Your task to perform on an android device: open app "Google Calendar" Image 0: 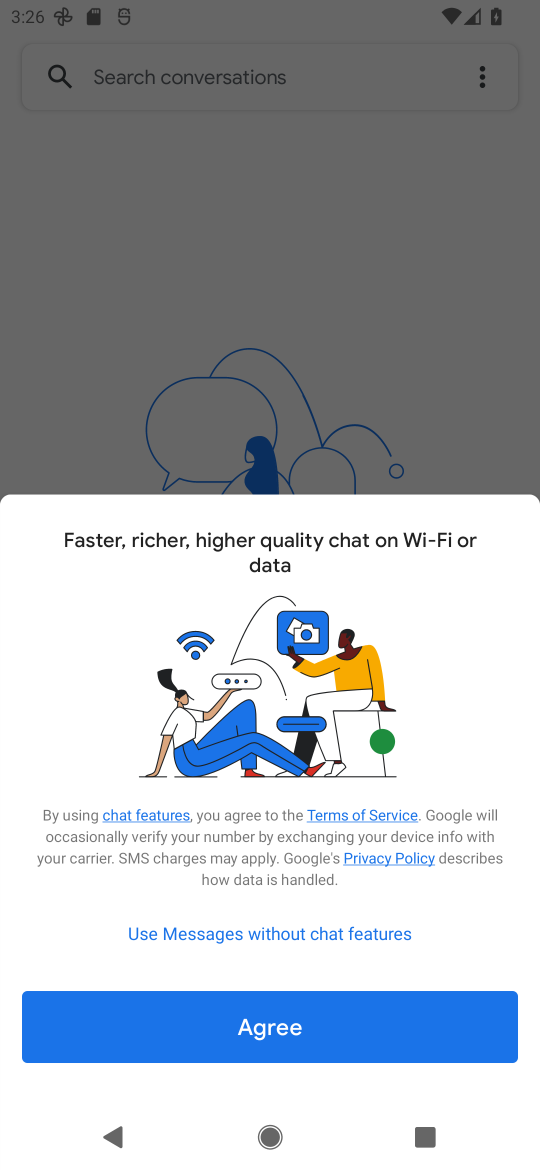
Step 0: press home button
Your task to perform on an android device: open app "Google Calendar" Image 1: 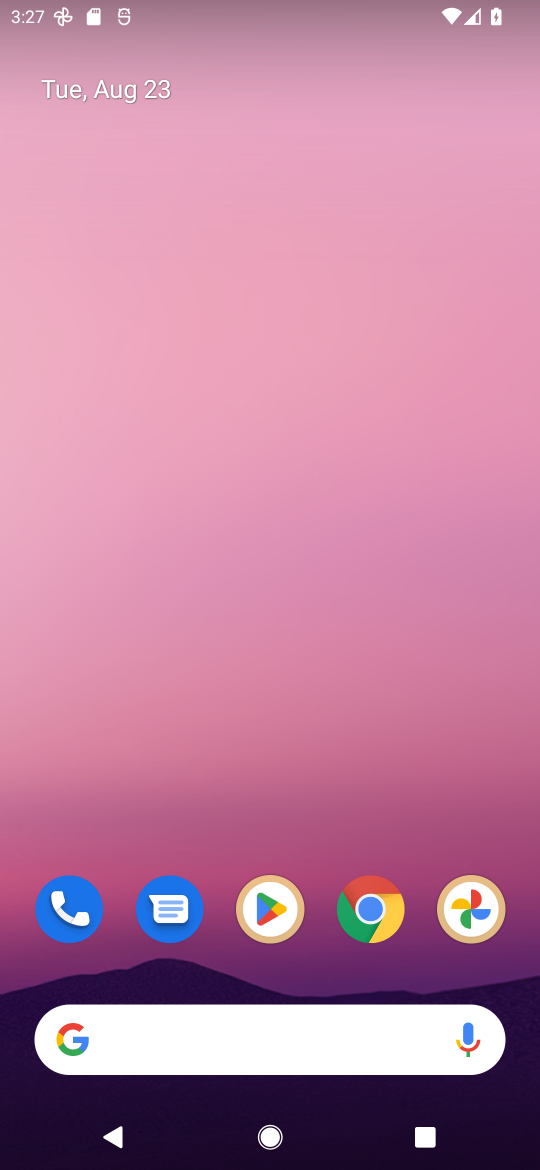
Step 1: drag from (319, 859) to (318, 104)
Your task to perform on an android device: open app "Google Calendar" Image 2: 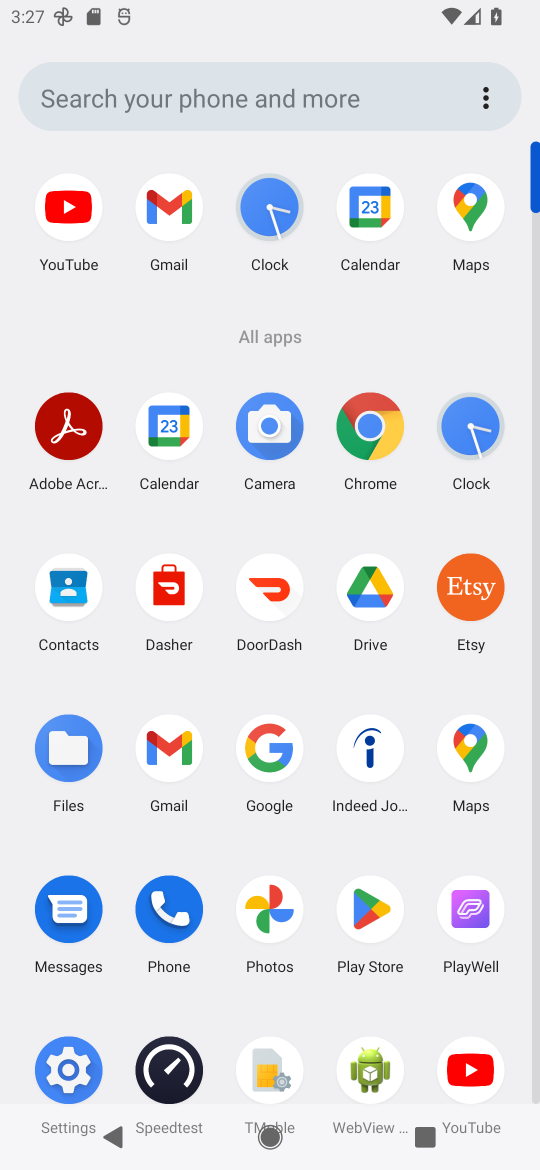
Step 2: click (369, 907)
Your task to perform on an android device: open app "Google Calendar" Image 3: 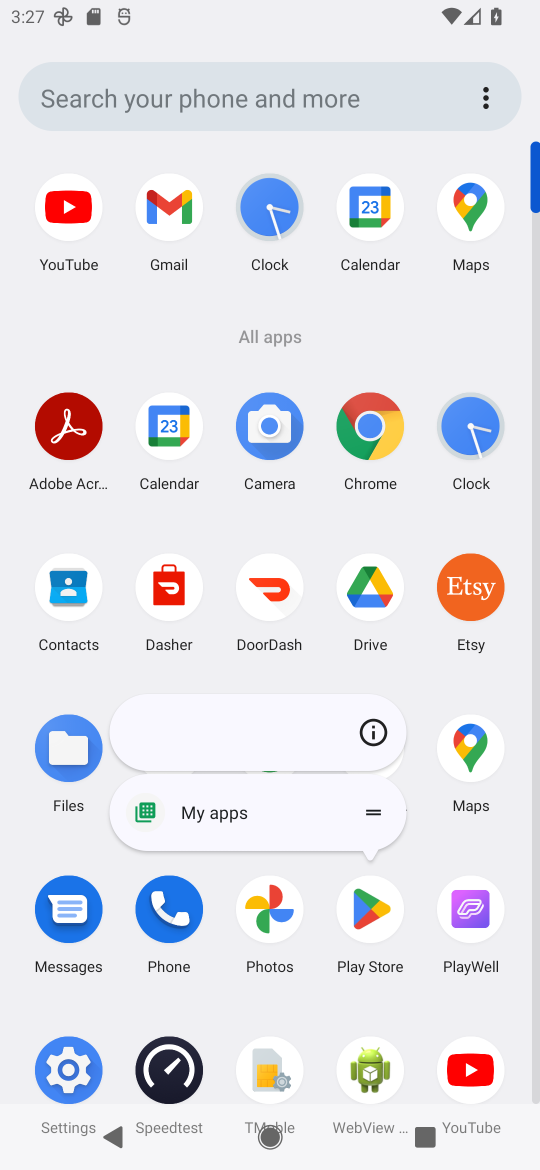
Step 3: click (364, 907)
Your task to perform on an android device: open app "Google Calendar" Image 4: 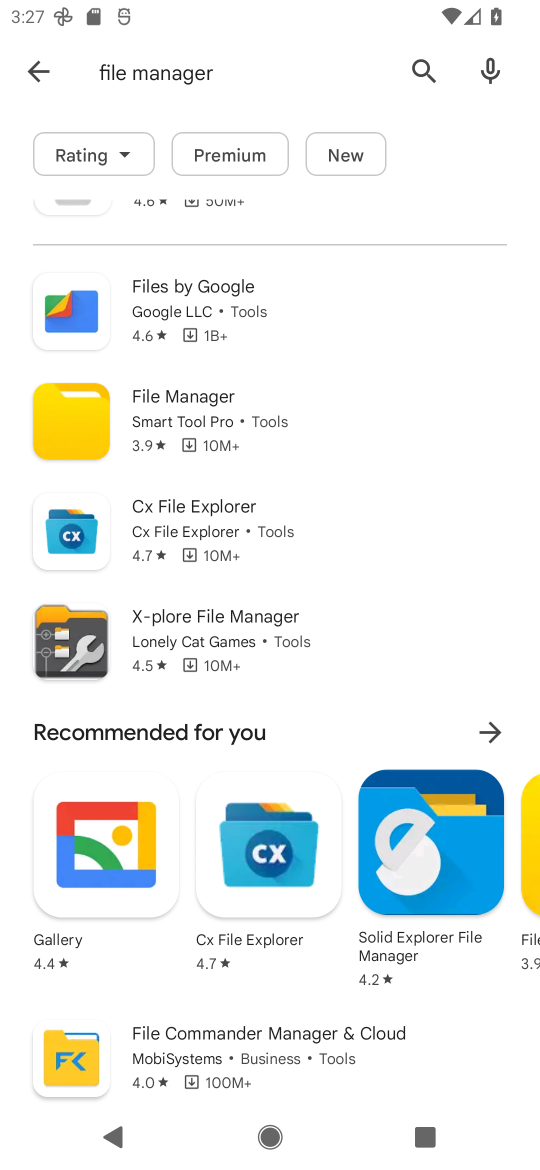
Step 4: click (415, 70)
Your task to perform on an android device: open app "Google Calendar" Image 5: 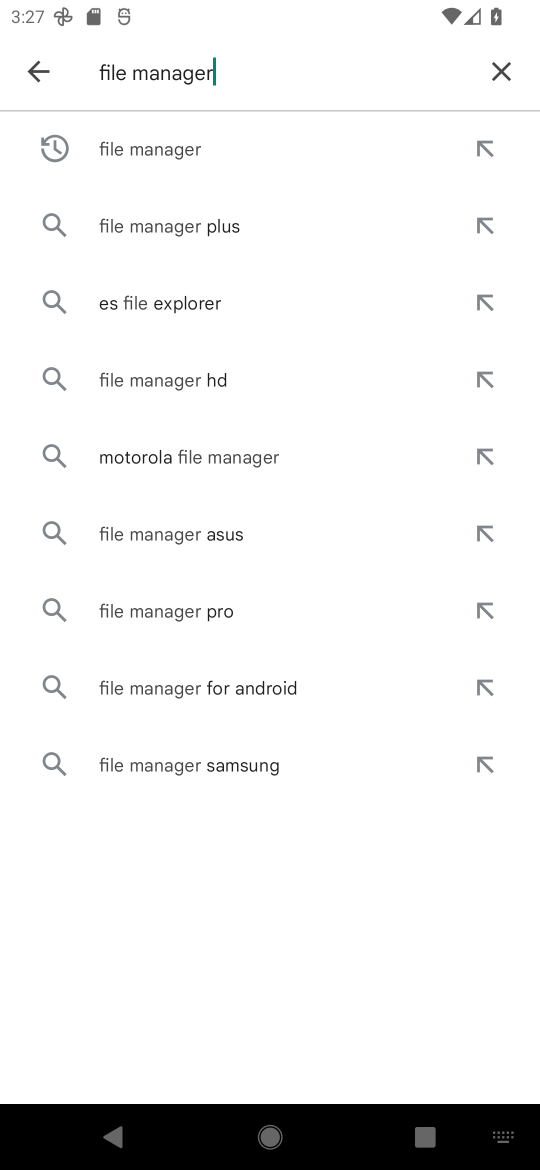
Step 5: click (498, 62)
Your task to perform on an android device: open app "Google Calendar" Image 6: 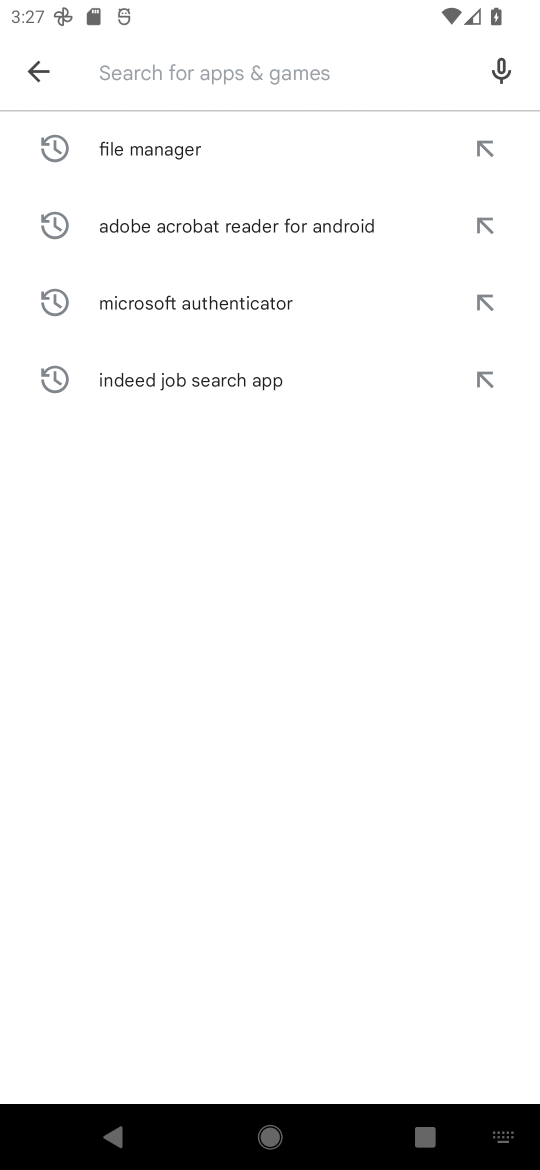
Step 6: type "Google Calendar"
Your task to perform on an android device: open app "Google Calendar" Image 7: 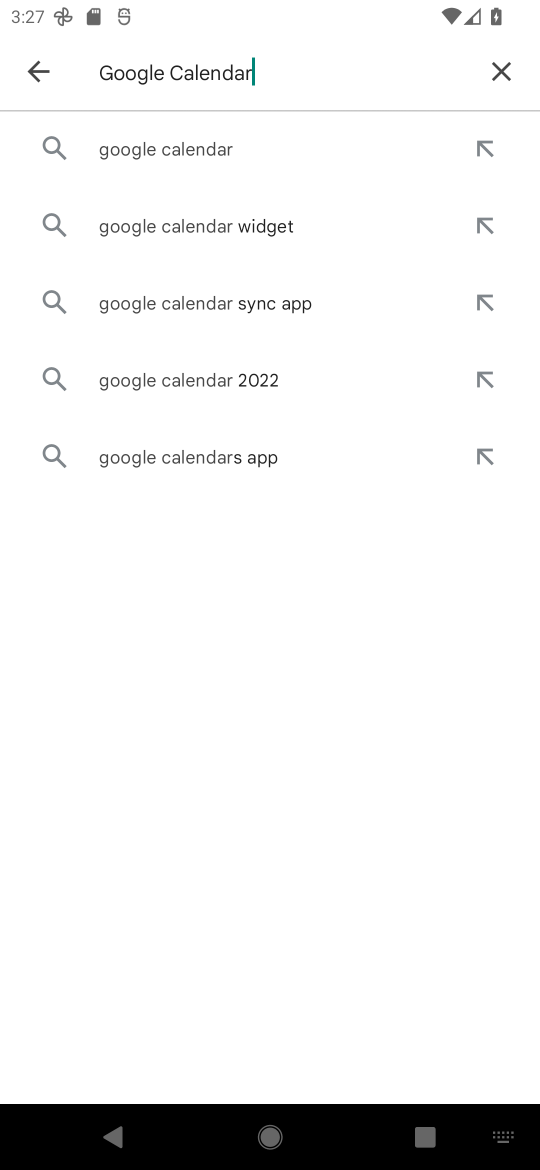
Step 7: click (243, 135)
Your task to perform on an android device: open app "Google Calendar" Image 8: 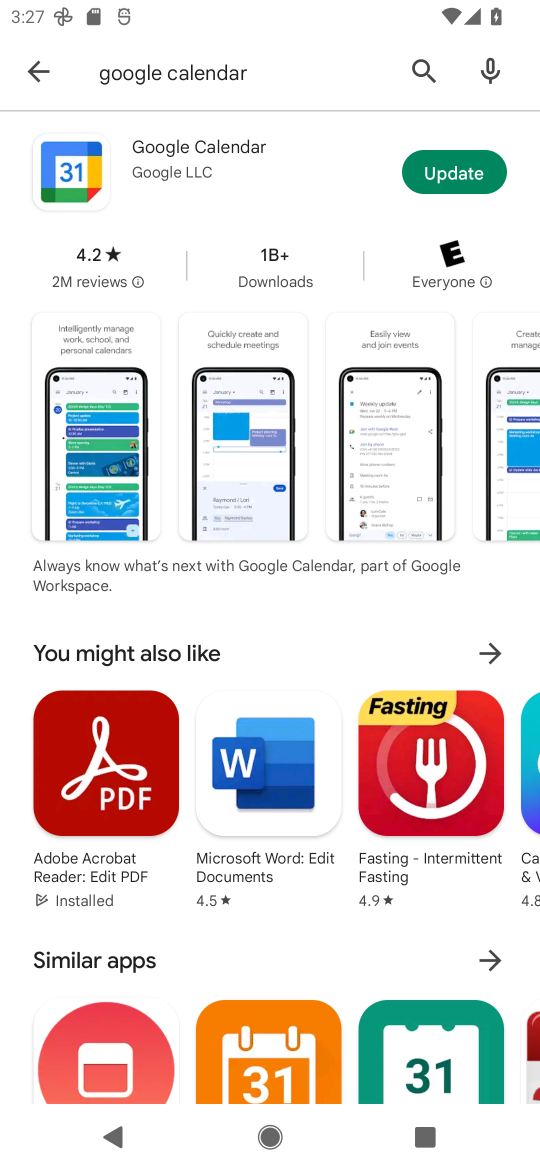
Step 8: click (445, 172)
Your task to perform on an android device: open app "Google Calendar" Image 9: 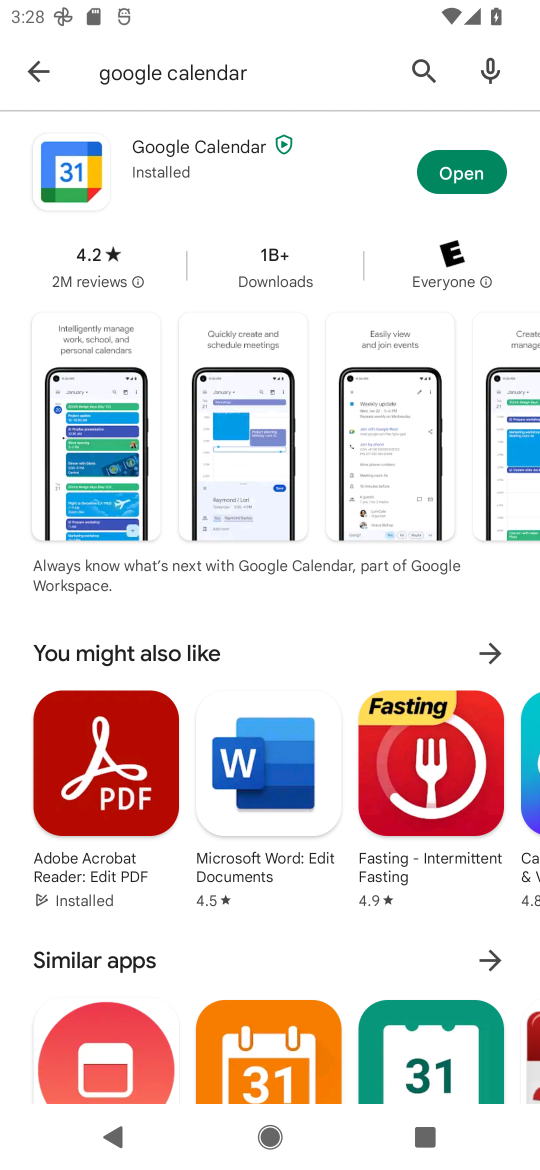
Step 9: click (469, 166)
Your task to perform on an android device: open app "Google Calendar" Image 10: 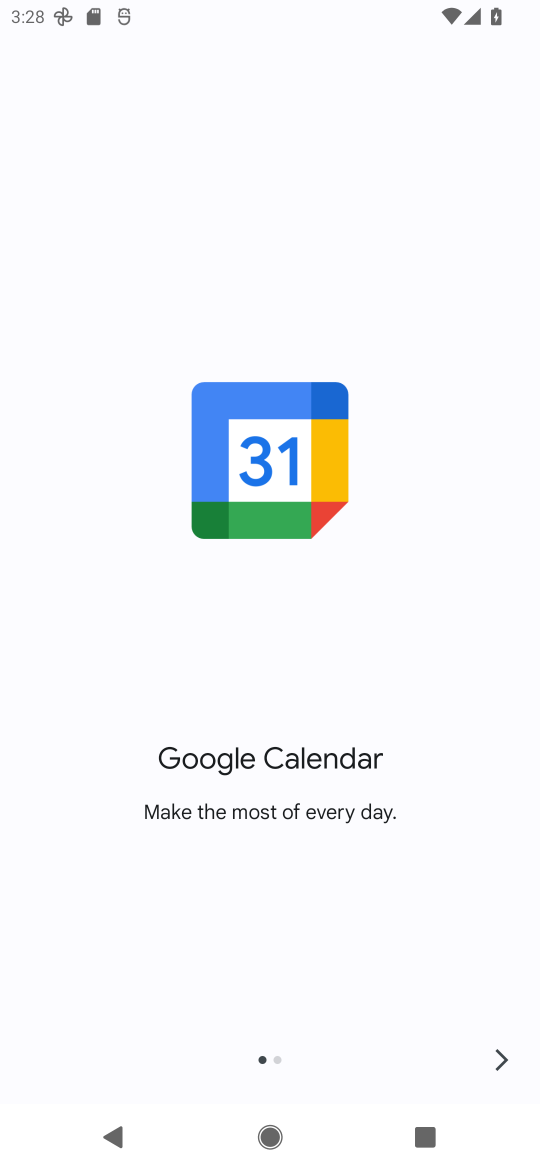
Step 10: click (500, 1055)
Your task to perform on an android device: open app "Google Calendar" Image 11: 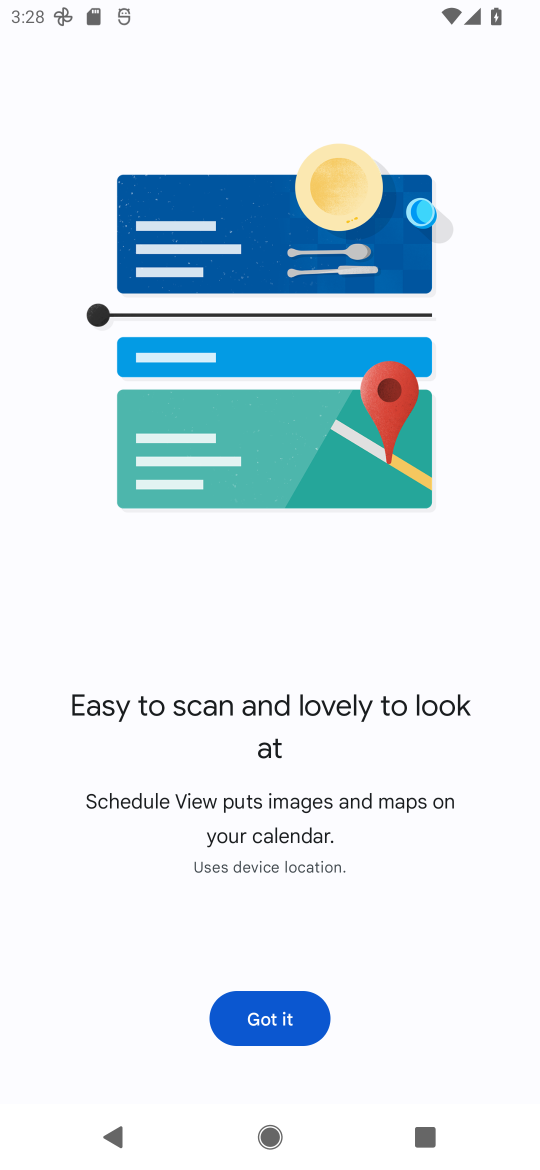
Step 11: click (244, 1014)
Your task to perform on an android device: open app "Google Calendar" Image 12: 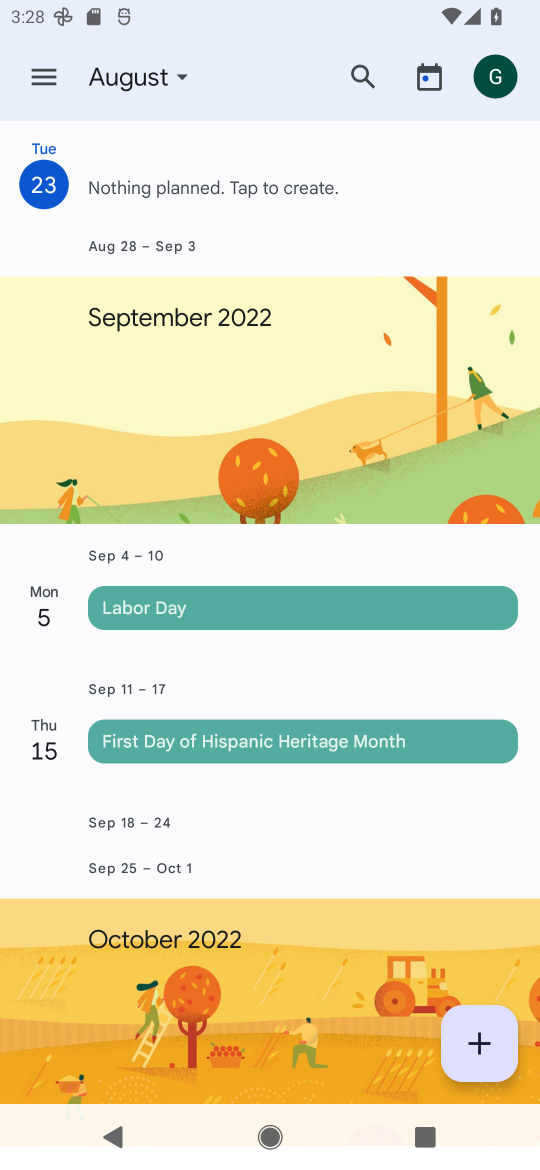
Step 12: task complete